Your task to perform on an android device: find which apps use the phone's location Image 0: 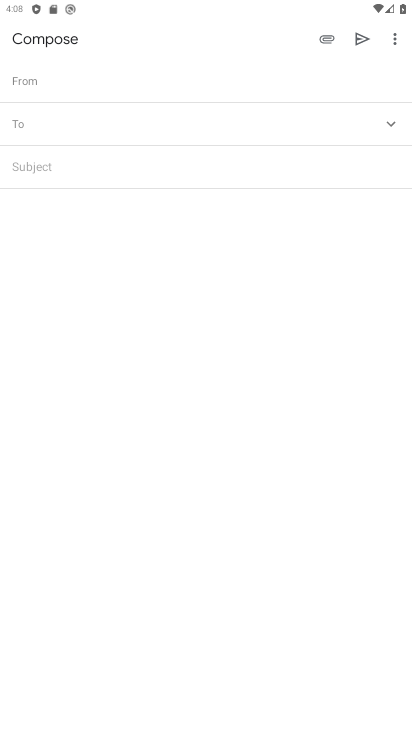
Step 0: drag from (271, 458) to (258, 191)
Your task to perform on an android device: find which apps use the phone's location Image 1: 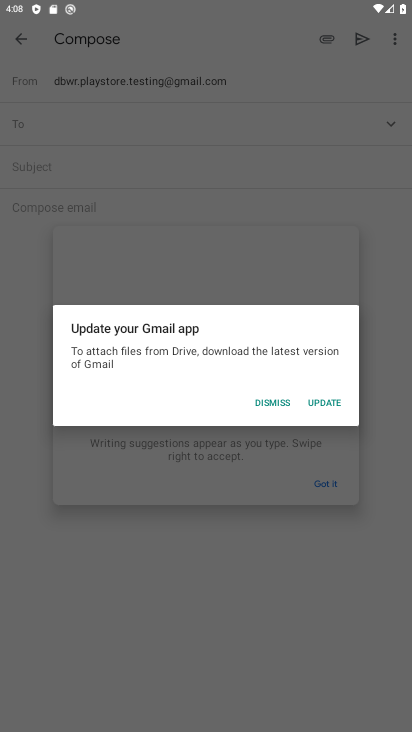
Step 1: task complete